Your task to perform on an android device: set default search engine in the chrome app Image 0: 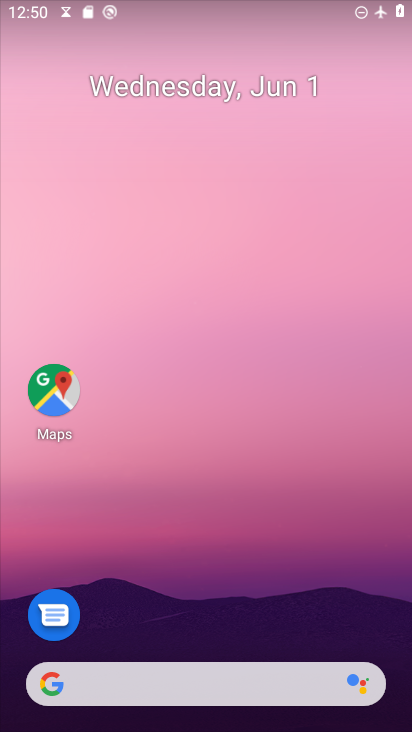
Step 0: drag from (244, 616) to (245, 156)
Your task to perform on an android device: set default search engine in the chrome app Image 1: 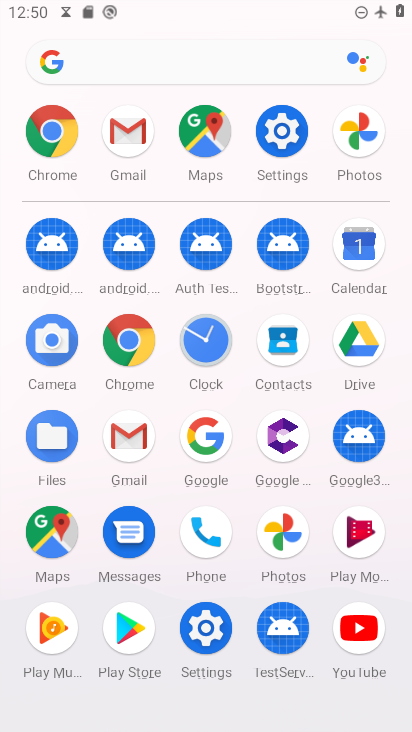
Step 1: click (37, 124)
Your task to perform on an android device: set default search engine in the chrome app Image 2: 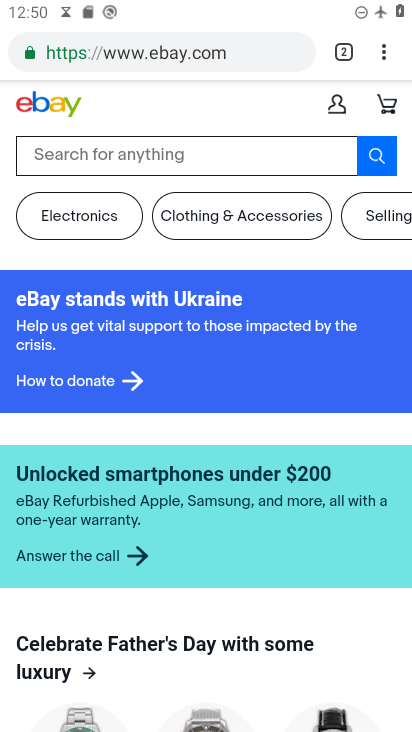
Step 2: click (382, 61)
Your task to perform on an android device: set default search engine in the chrome app Image 3: 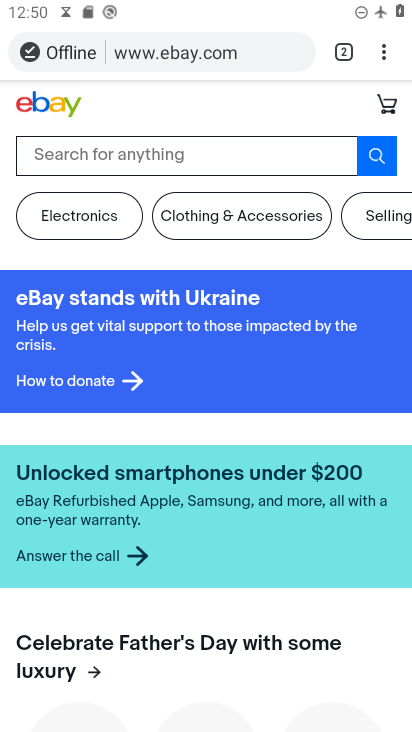
Step 3: click (387, 55)
Your task to perform on an android device: set default search engine in the chrome app Image 4: 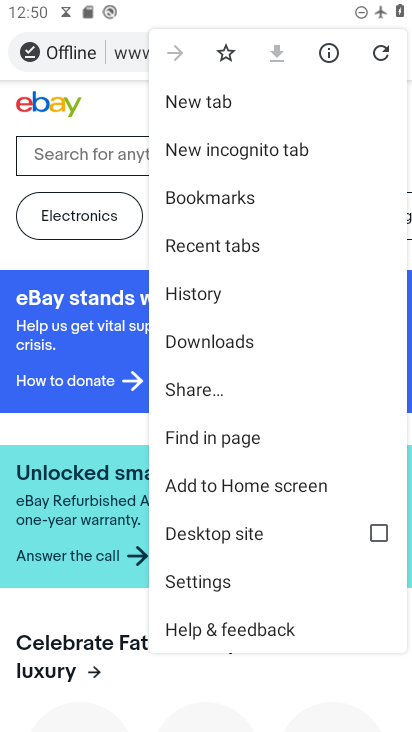
Step 4: drag from (266, 580) to (311, 301)
Your task to perform on an android device: set default search engine in the chrome app Image 5: 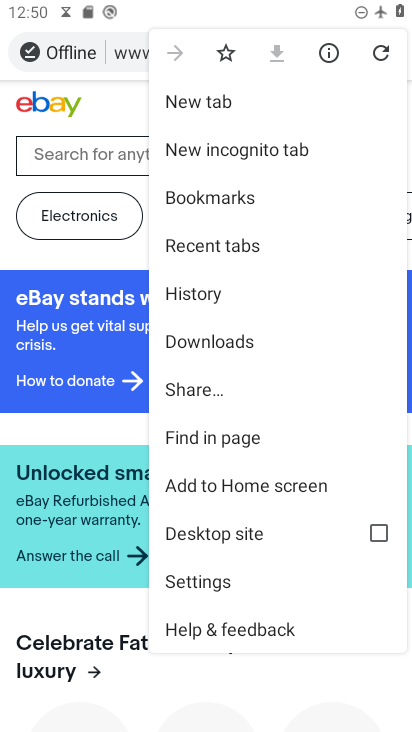
Step 5: click (230, 586)
Your task to perform on an android device: set default search engine in the chrome app Image 6: 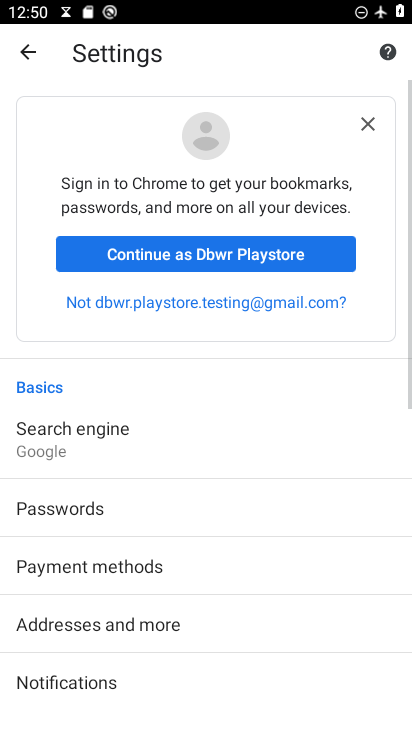
Step 6: drag from (243, 539) to (252, 262)
Your task to perform on an android device: set default search engine in the chrome app Image 7: 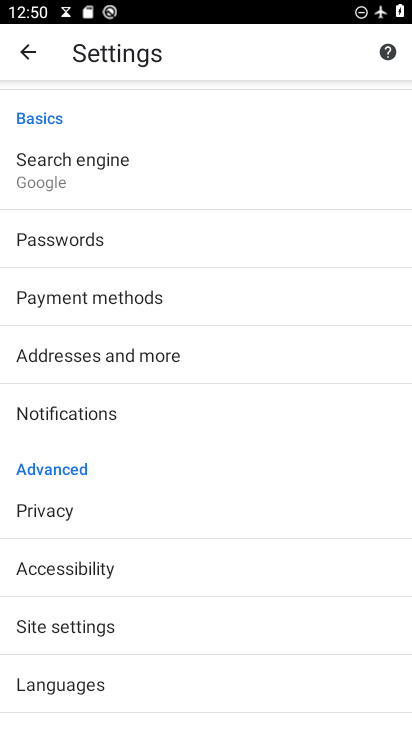
Step 7: drag from (205, 573) to (201, 294)
Your task to perform on an android device: set default search engine in the chrome app Image 8: 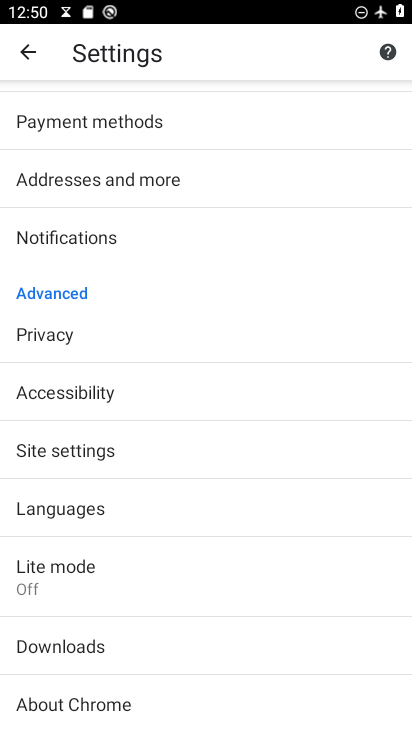
Step 8: drag from (189, 649) to (167, 472)
Your task to perform on an android device: set default search engine in the chrome app Image 9: 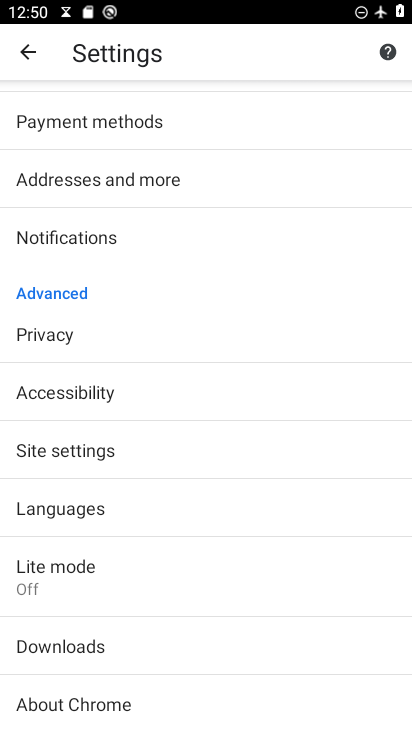
Step 9: click (128, 717)
Your task to perform on an android device: set default search engine in the chrome app Image 10: 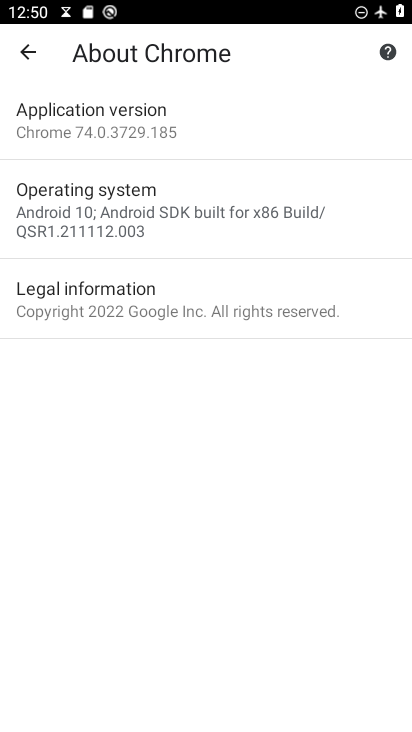
Step 10: press back button
Your task to perform on an android device: set default search engine in the chrome app Image 11: 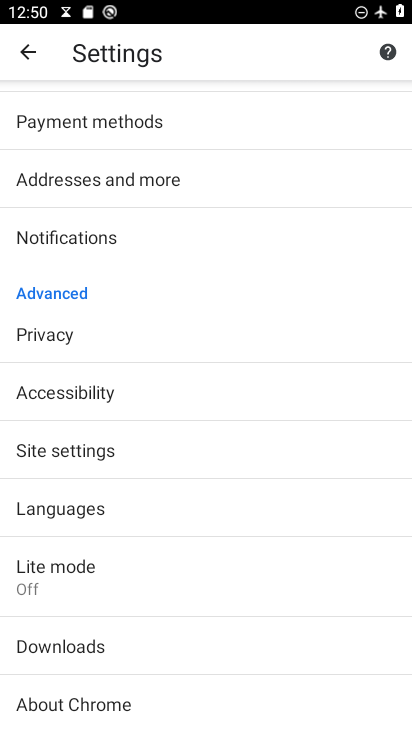
Step 11: click (138, 389)
Your task to perform on an android device: set default search engine in the chrome app Image 12: 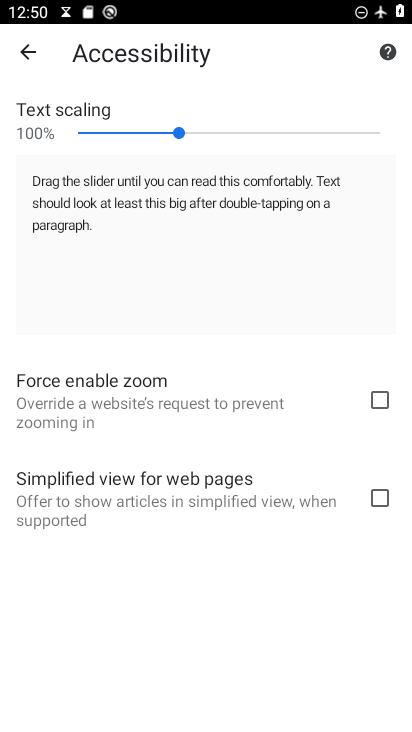
Step 12: press back button
Your task to perform on an android device: set default search engine in the chrome app Image 13: 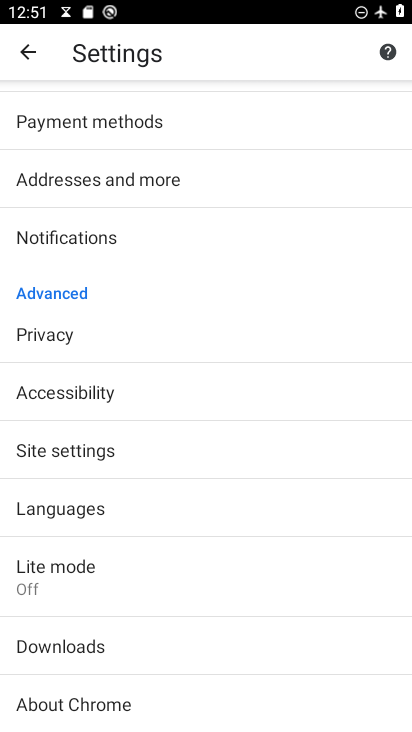
Step 13: click (234, 468)
Your task to perform on an android device: set default search engine in the chrome app Image 14: 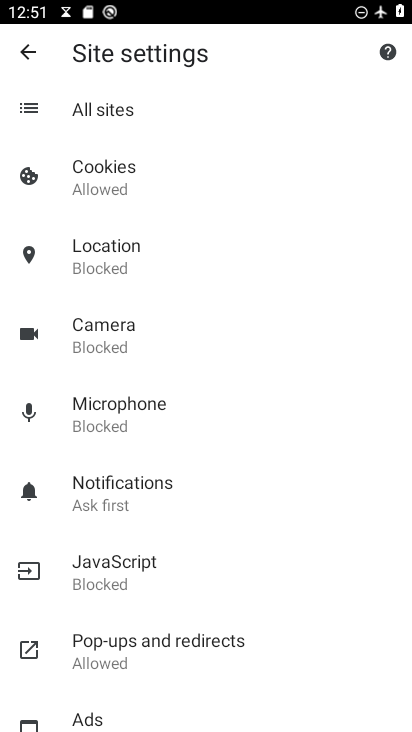
Step 14: drag from (274, 636) to (352, 232)
Your task to perform on an android device: set default search engine in the chrome app Image 15: 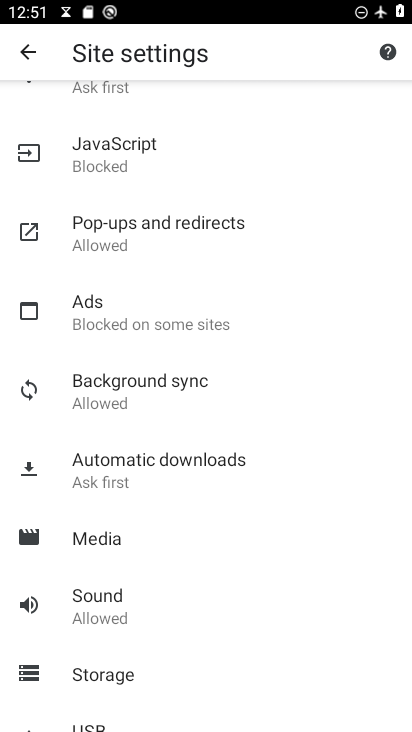
Step 15: drag from (236, 666) to (234, 344)
Your task to perform on an android device: set default search engine in the chrome app Image 16: 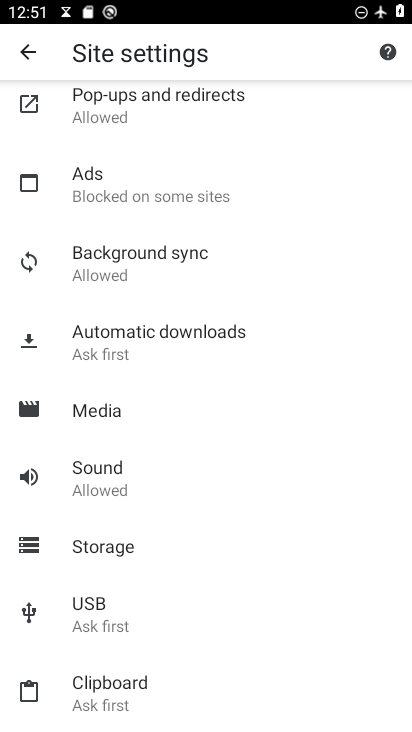
Step 16: drag from (271, 704) to (304, 344)
Your task to perform on an android device: set default search engine in the chrome app Image 17: 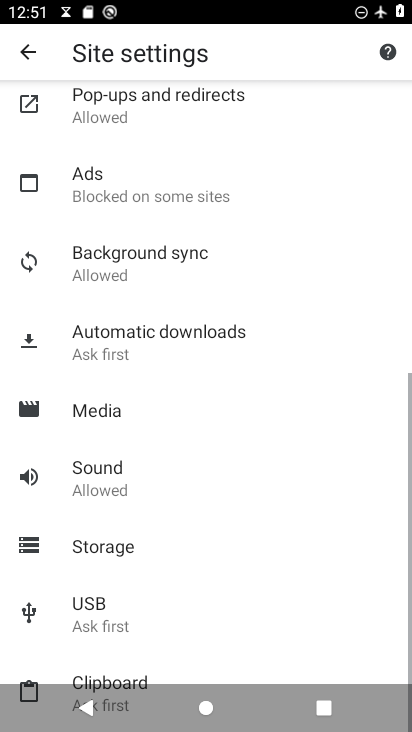
Step 17: drag from (317, 289) to (309, 569)
Your task to perform on an android device: set default search engine in the chrome app Image 18: 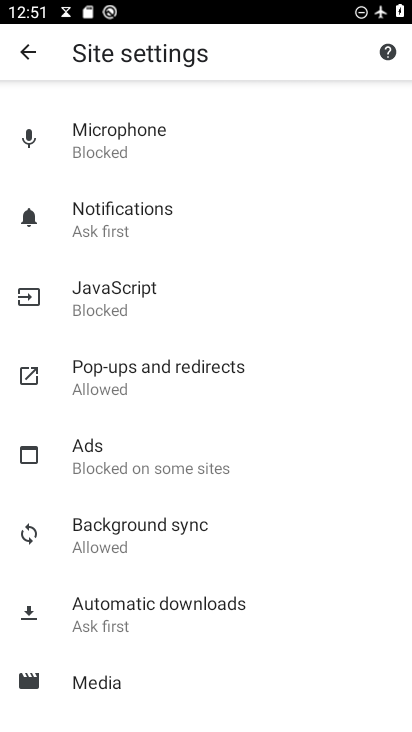
Step 18: drag from (293, 196) to (294, 492)
Your task to perform on an android device: set default search engine in the chrome app Image 19: 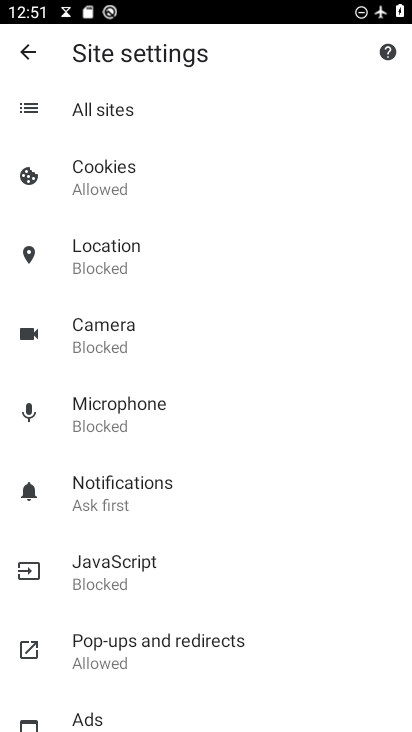
Step 19: press back button
Your task to perform on an android device: set default search engine in the chrome app Image 20: 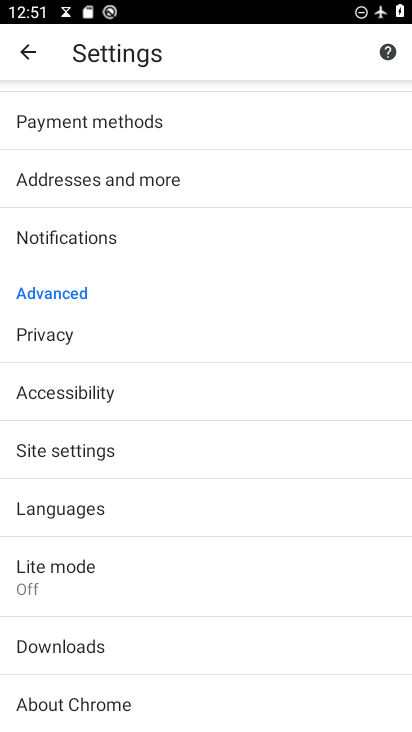
Step 20: drag from (369, 331) to (346, 520)
Your task to perform on an android device: set default search engine in the chrome app Image 21: 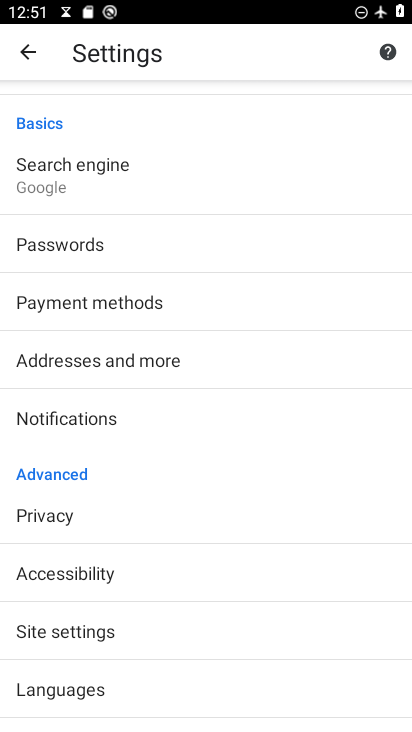
Step 21: click (150, 188)
Your task to perform on an android device: set default search engine in the chrome app Image 22: 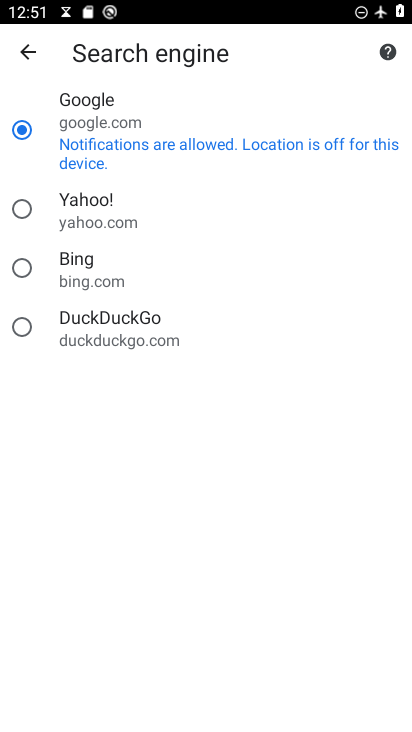
Step 22: task complete